Your task to perform on an android device: Clear the shopping cart on costco.com. Search for macbook pro 15 inch on costco.com, select the first entry, and add it to the cart. Image 0: 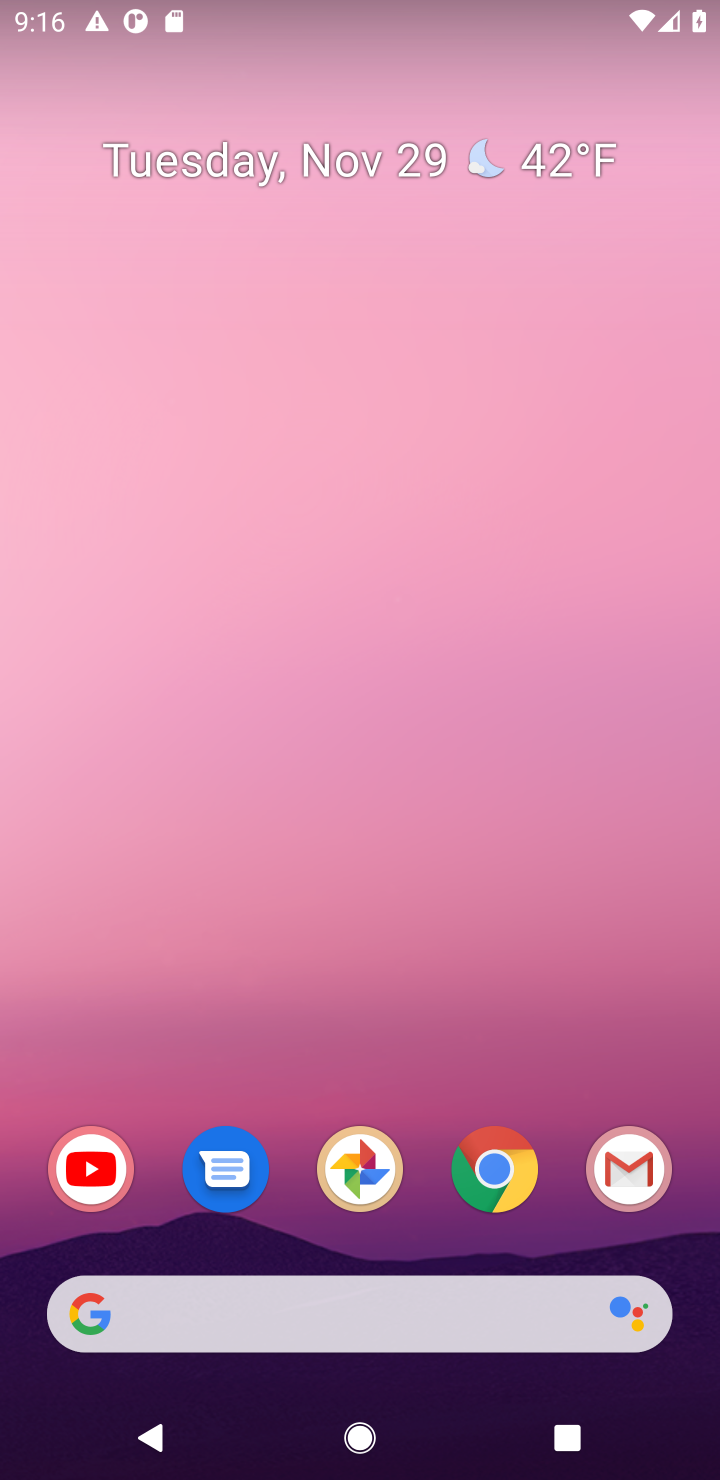
Step 0: click (334, 1303)
Your task to perform on an android device: Clear the shopping cart on costco.com. Search for macbook pro 15 inch on costco.com, select the first entry, and add it to the cart. Image 1: 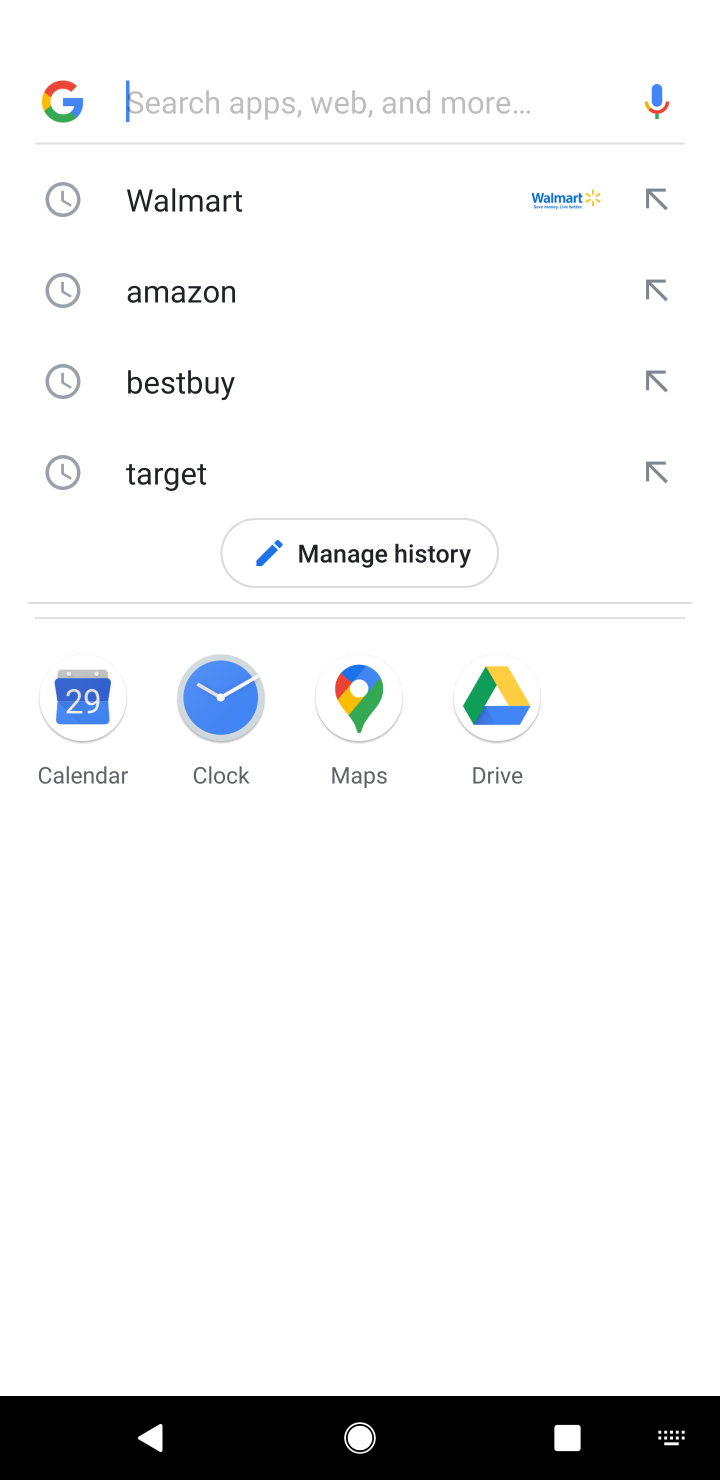
Step 1: click (232, 239)
Your task to perform on an android device: Clear the shopping cart on costco.com. Search for macbook pro 15 inch on costco.com, select the first entry, and add it to the cart. Image 2: 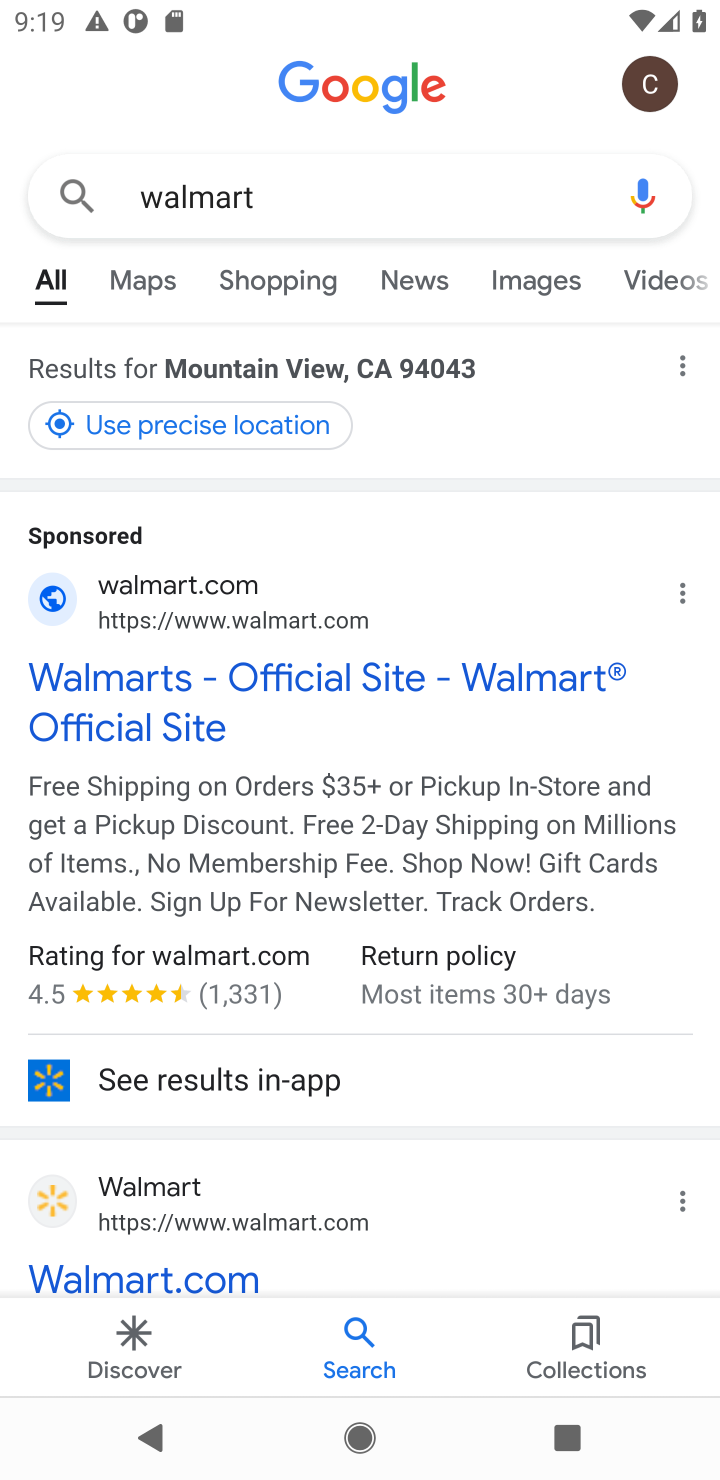
Step 2: click (314, 711)
Your task to perform on an android device: Clear the shopping cart on costco.com. Search for macbook pro 15 inch on costco.com, select the first entry, and add it to the cart. Image 3: 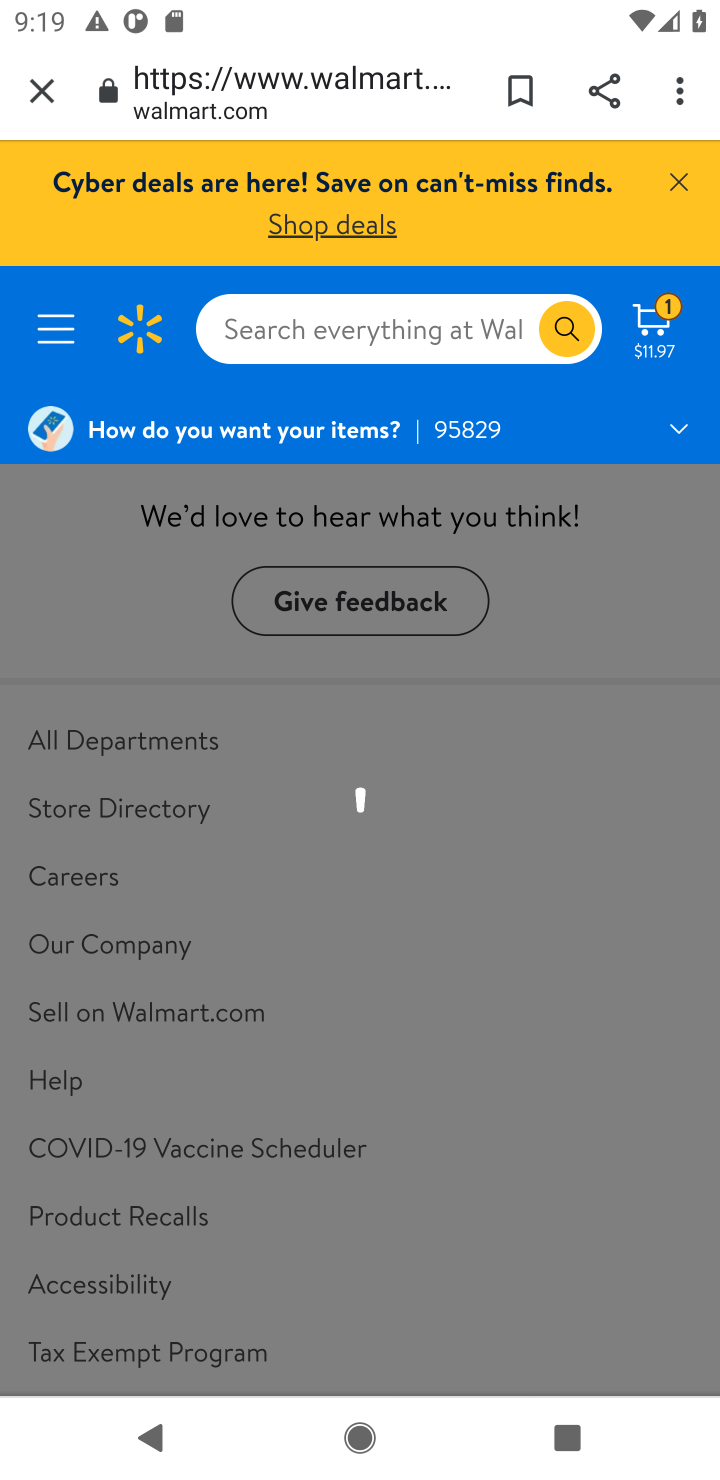
Step 3: click (450, 333)
Your task to perform on an android device: Clear the shopping cart on costco.com. Search for macbook pro 15 inch on costco.com, select the first entry, and add it to the cart. Image 4: 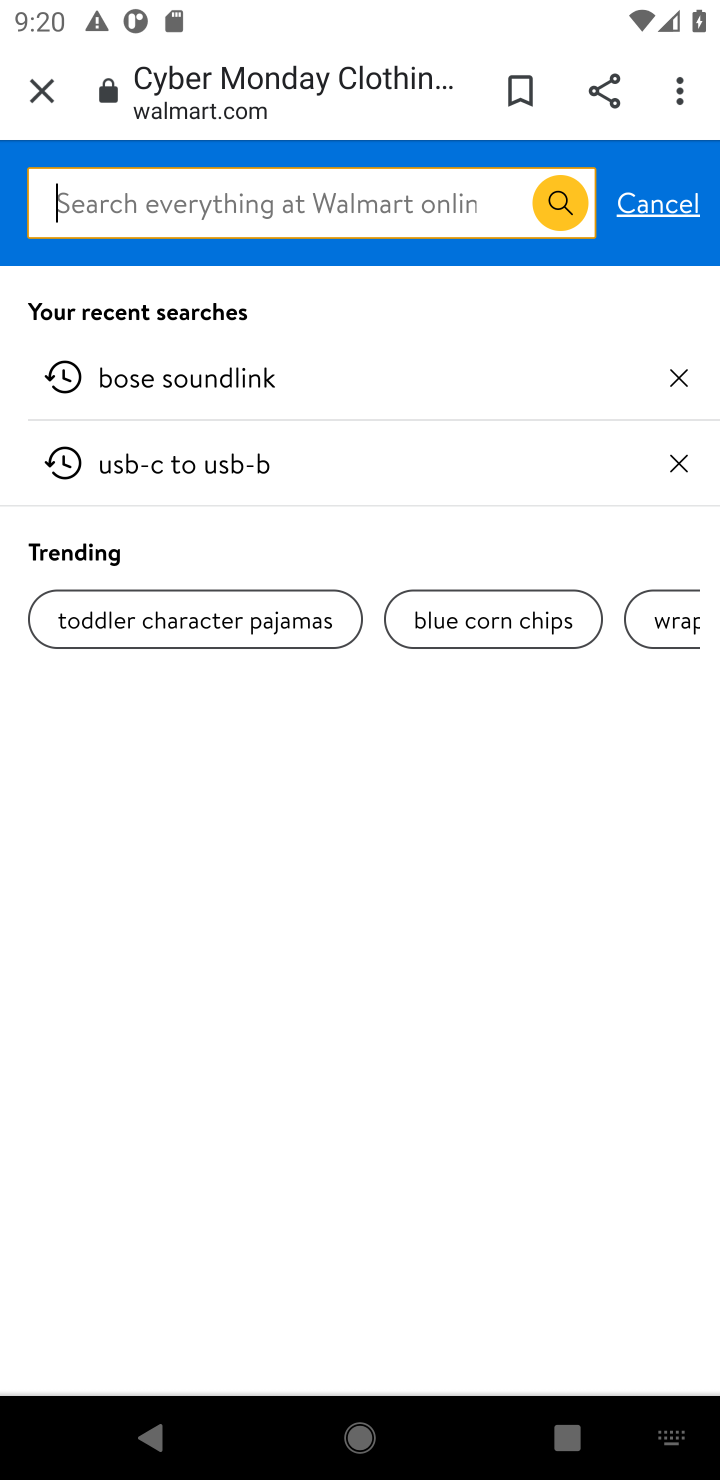
Step 4: type "macbook pro 15"
Your task to perform on an android device: Clear the shopping cart on costco.com. Search for macbook pro 15 inch on costco.com, select the first entry, and add it to the cart. Image 5: 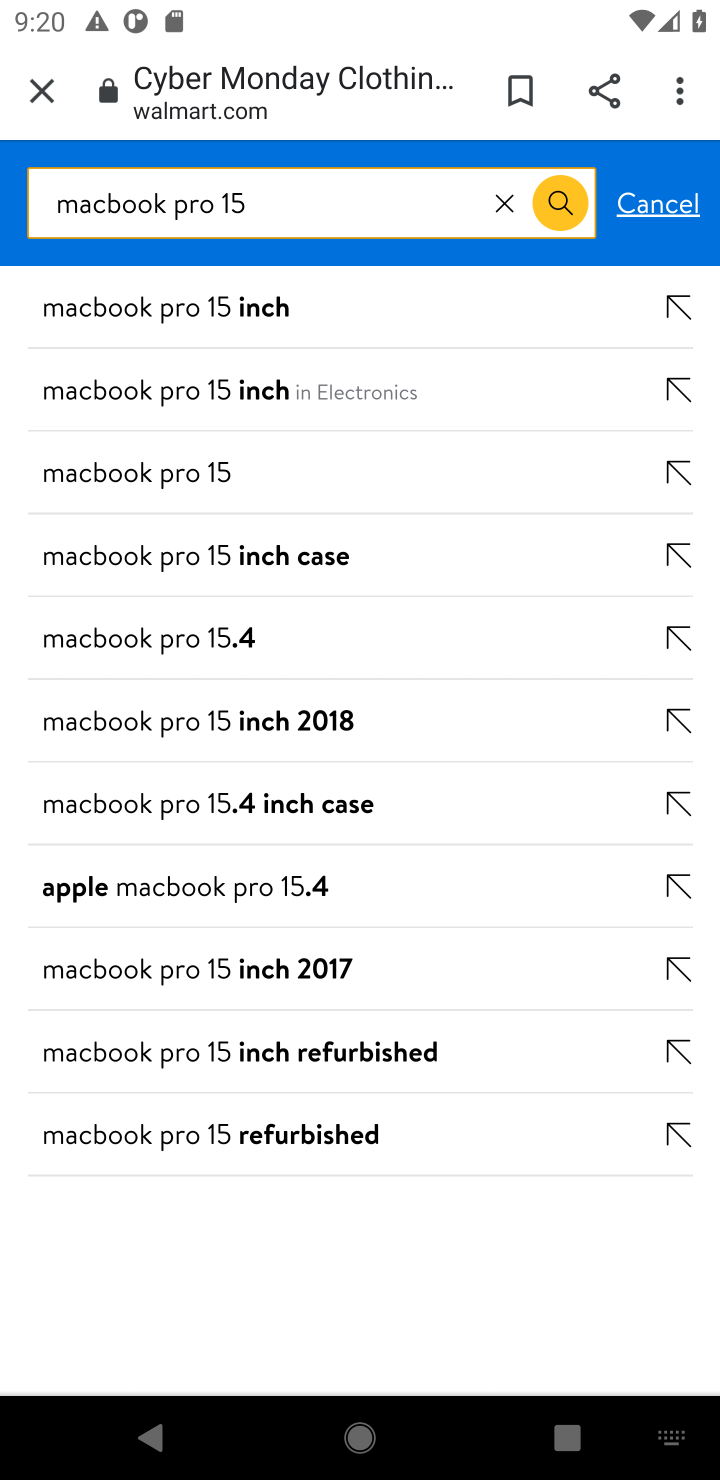
Step 5: click (114, 345)
Your task to perform on an android device: Clear the shopping cart on costco.com. Search for macbook pro 15 inch on costco.com, select the first entry, and add it to the cart. Image 6: 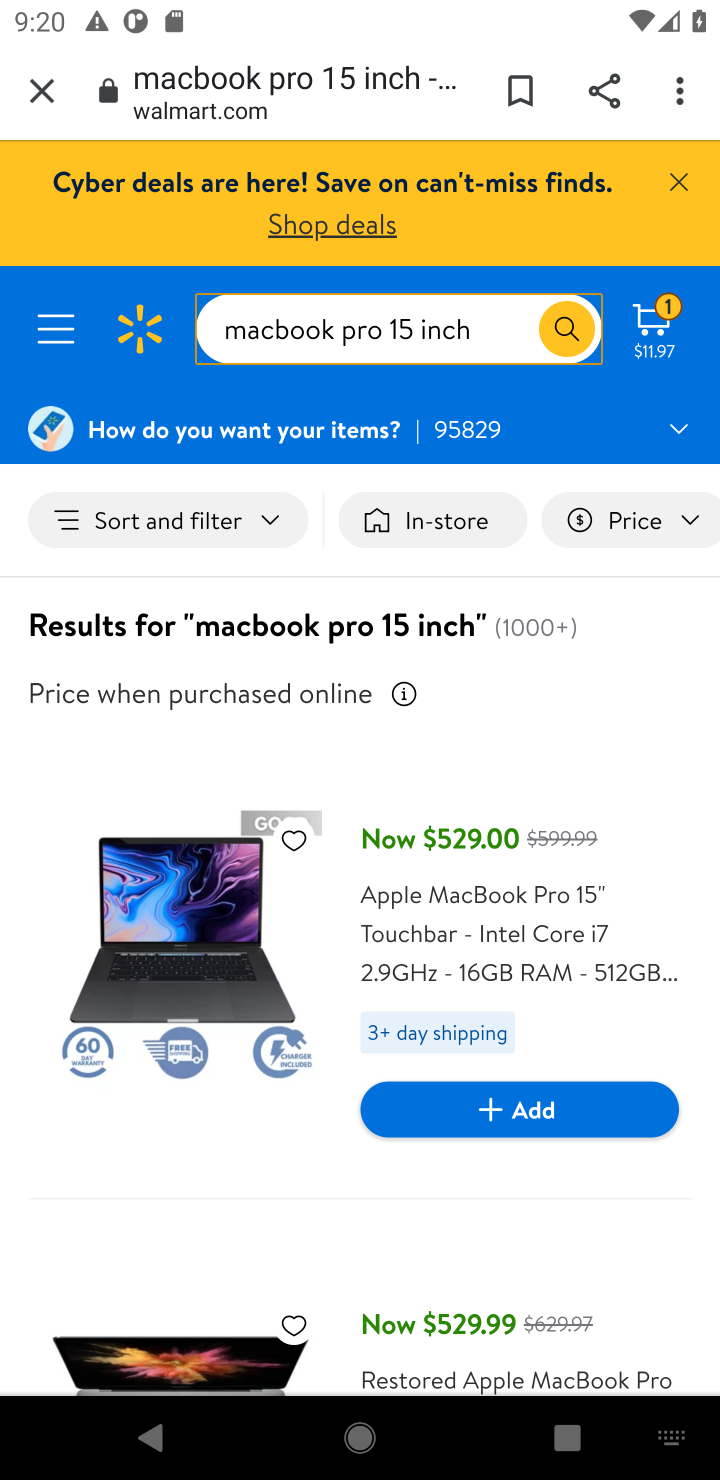
Step 6: click (517, 1102)
Your task to perform on an android device: Clear the shopping cart on costco.com. Search for macbook pro 15 inch on costco.com, select the first entry, and add it to the cart. Image 7: 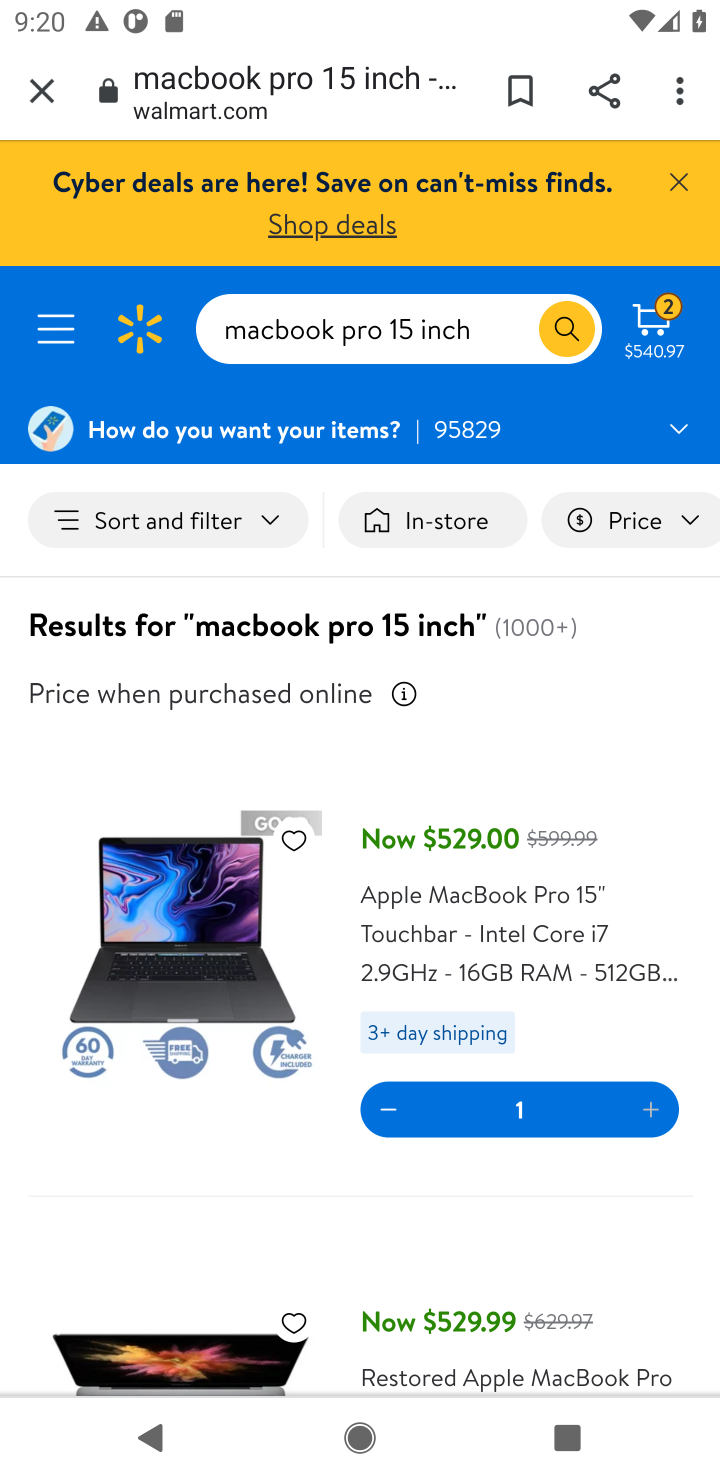
Step 7: task complete